Your task to perform on an android device: change notifications settings Image 0: 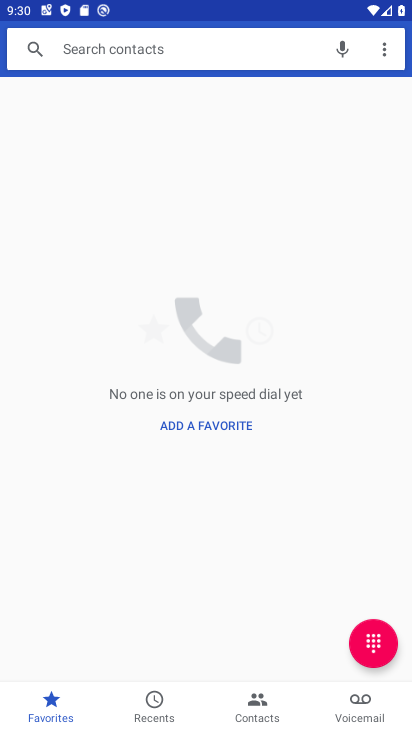
Step 0: press home button
Your task to perform on an android device: change notifications settings Image 1: 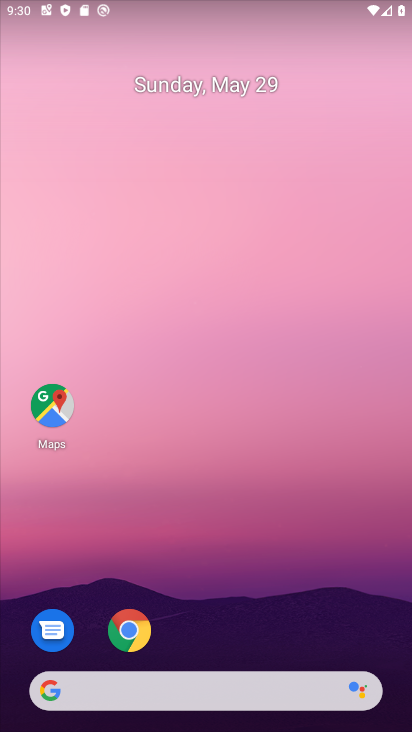
Step 1: drag from (279, 627) to (204, 139)
Your task to perform on an android device: change notifications settings Image 2: 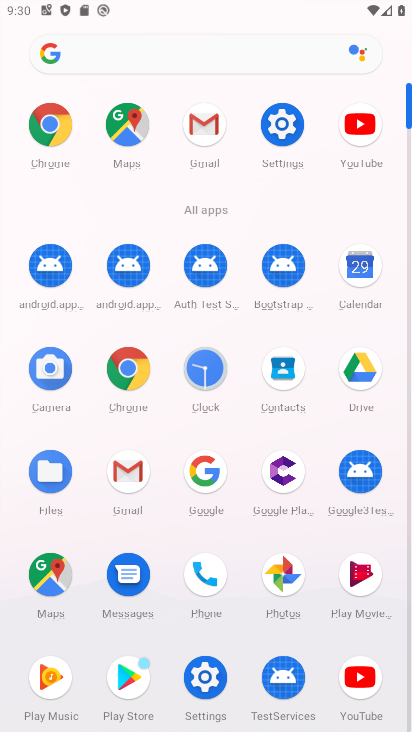
Step 2: click (276, 117)
Your task to perform on an android device: change notifications settings Image 3: 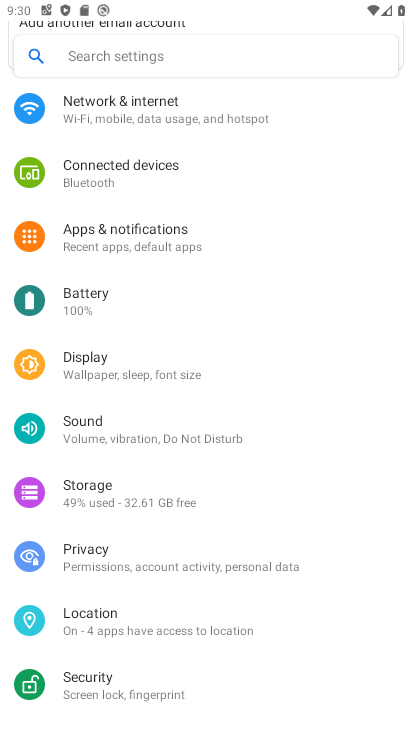
Step 3: click (114, 247)
Your task to perform on an android device: change notifications settings Image 4: 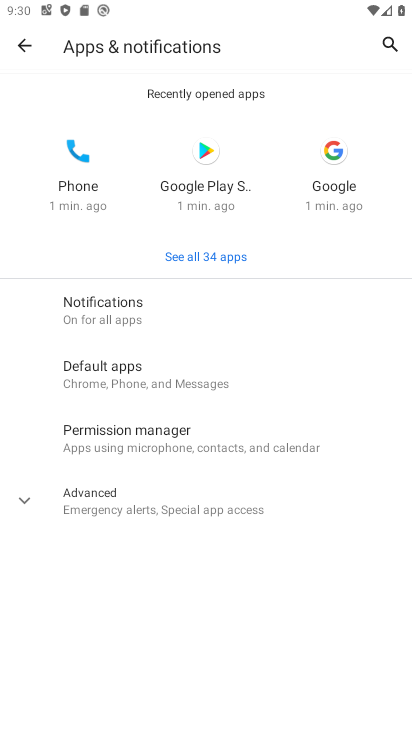
Step 4: click (116, 309)
Your task to perform on an android device: change notifications settings Image 5: 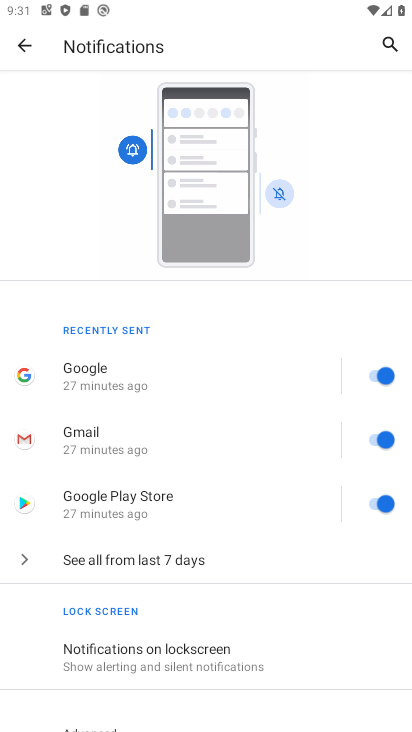
Step 5: drag from (137, 724) to (140, 571)
Your task to perform on an android device: change notifications settings Image 6: 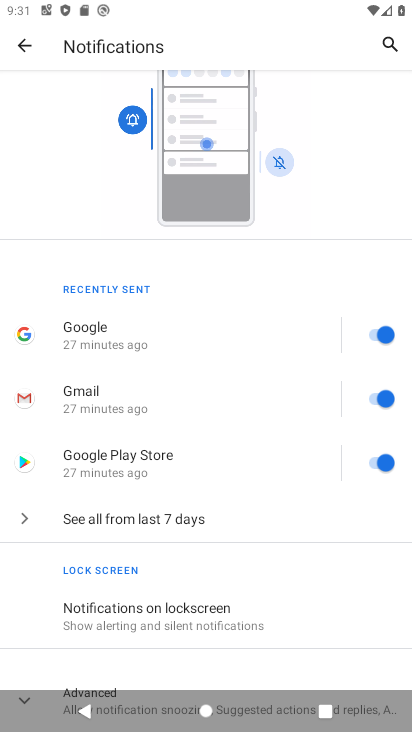
Step 6: drag from (128, 651) to (150, 459)
Your task to perform on an android device: change notifications settings Image 7: 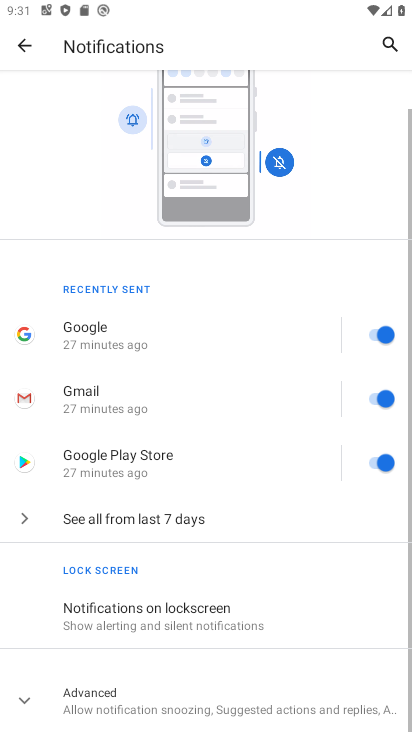
Step 7: click (98, 683)
Your task to perform on an android device: change notifications settings Image 8: 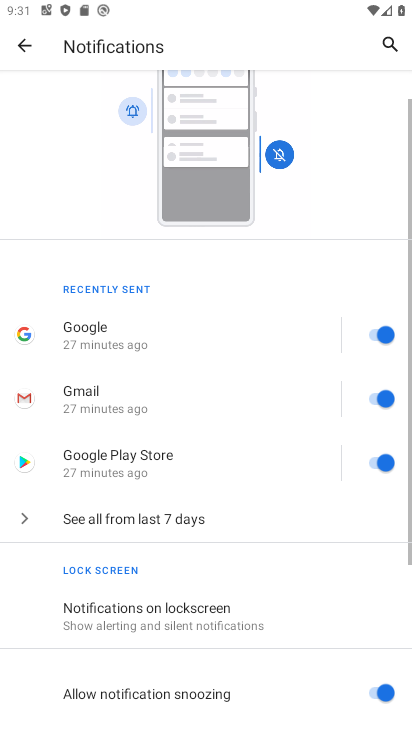
Step 8: drag from (117, 661) to (133, 417)
Your task to perform on an android device: change notifications settings Image 9: 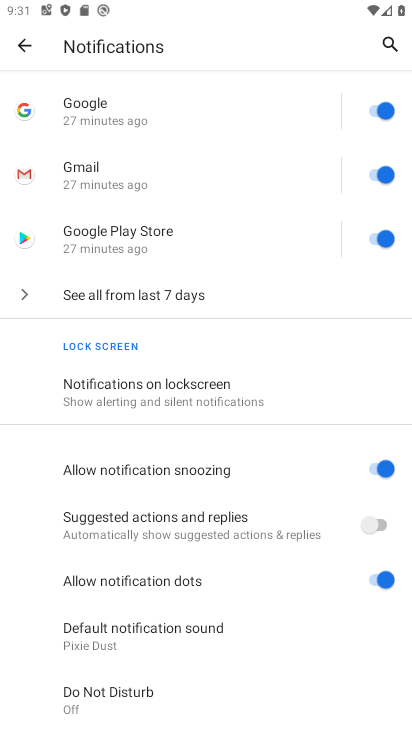
Step 9: click (392, 460)
Your task to perform on an android device: change notifications settings Image 10: 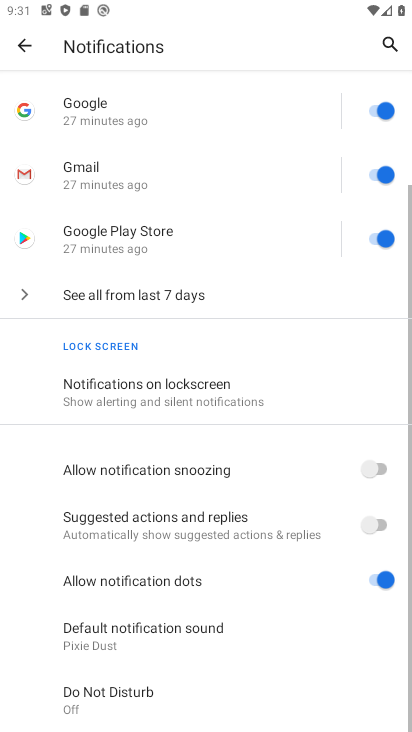
Step 10: task complete